Your task to perform on an android device: empty trash in the gmail app Image 0: 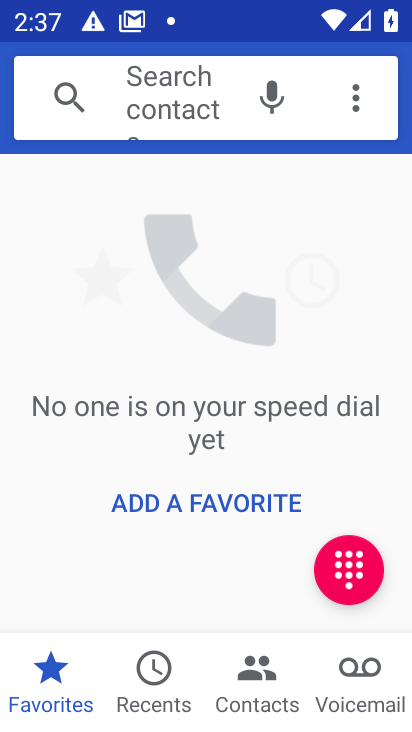
Step 0: press home button
Your task to perform on an android device: empty trash in the gmail app Image 1: 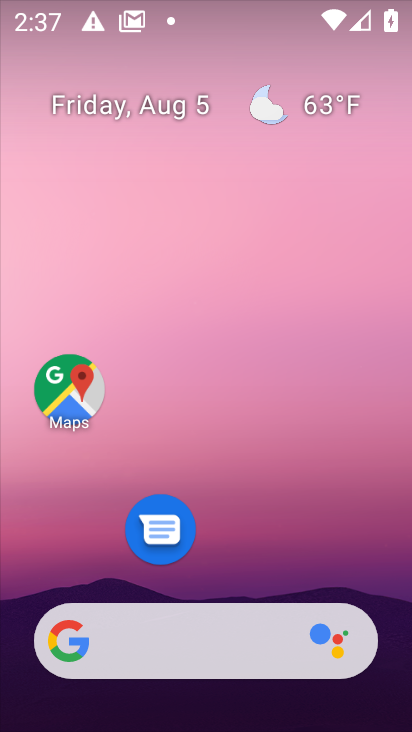
Step 1: drag from (105, 715) to (240, 3)
Your task to perform on an android device: empty trash in the gmail app Image 2: 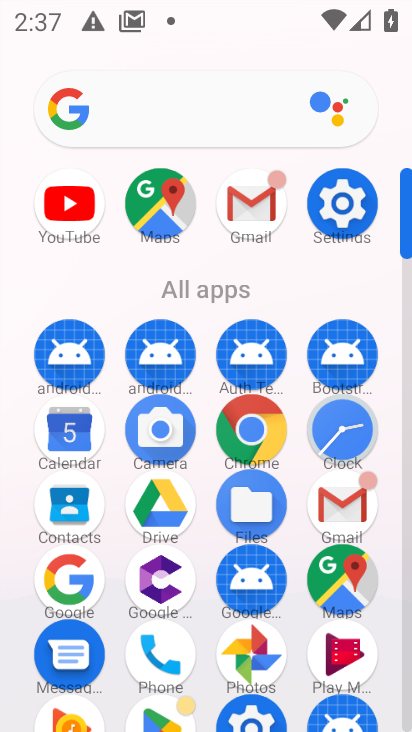
Step 2: click (243, 204)
Your task to perform on an android device: empty trash in the gmail app Image 3: 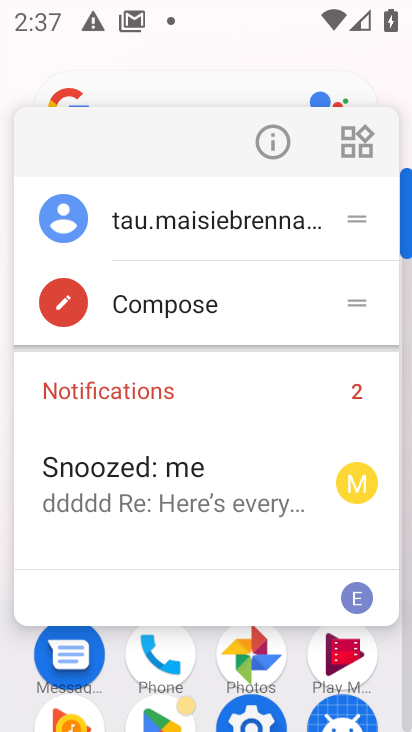
Step 3: click (262, 138)
Your task to perform on an android device: empty trash in the gmail app Image 4: 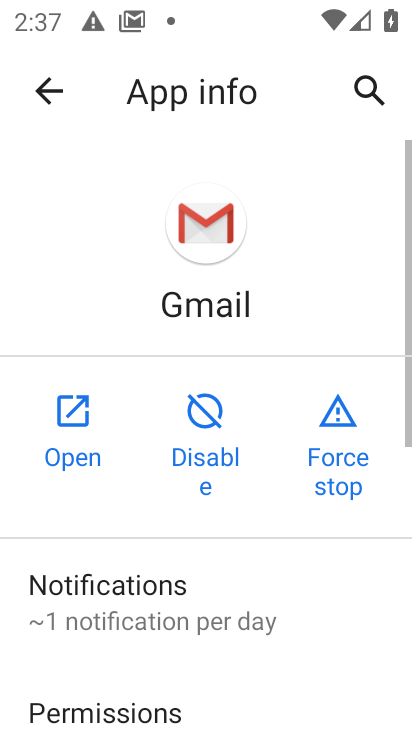
Step 4: drag from (273, 665) to (411, 2)
Your task to perform on an android device: empty trash in the gmail app Image 5: 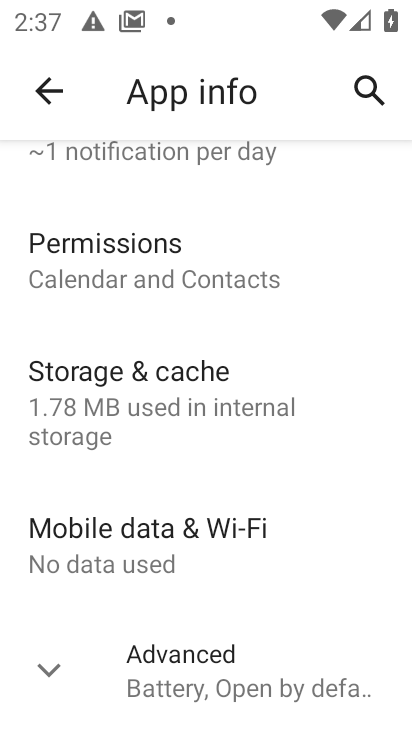
Step 5: drag from (348, 589) to (341, 97)
Your task to perform on an android device: empty trash in the gmail app Image 6: 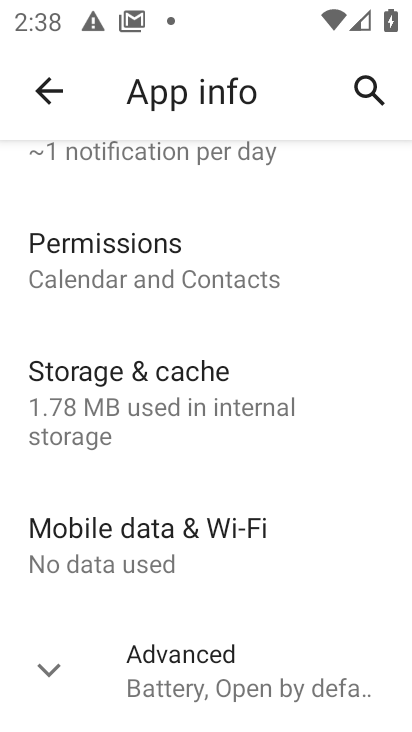
Step 6: click (31, 87)
Your task to perform on an android device: empty trash in the gmail app Image 7: 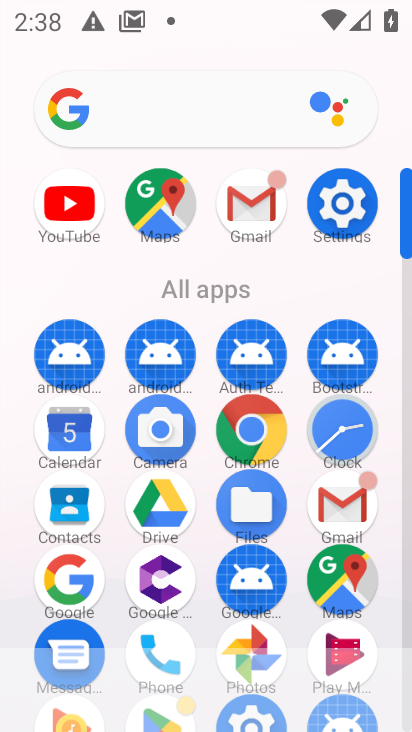
Step 7: click (260, 206)
Your task to perform on an android device: empty trash in the gmail app Image 8: 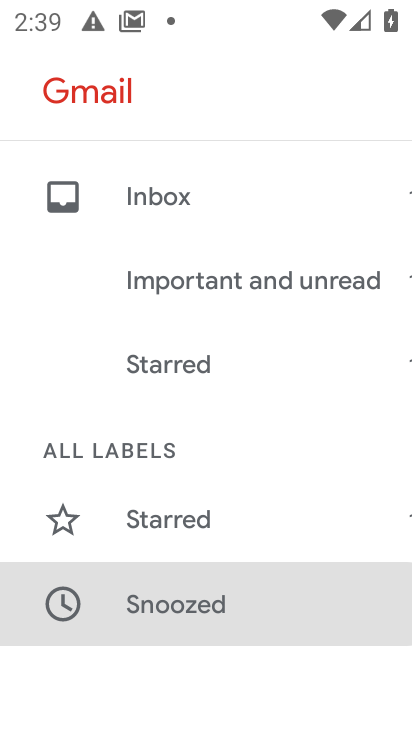
Step 8: drag from (233, 486) to (210, 25)
Your task to perform on an android device: empty trash in the gmail app Image 9: 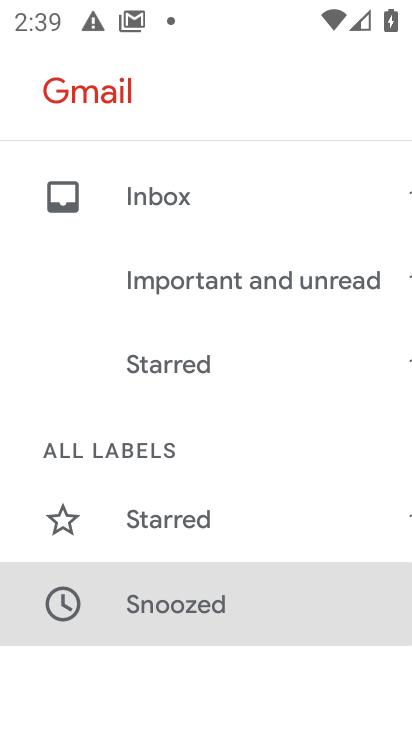
Step 9: drag from (235, 643) to (228, 79)
Your task to perform on an android device: empty trash in the gmail app Image 10: 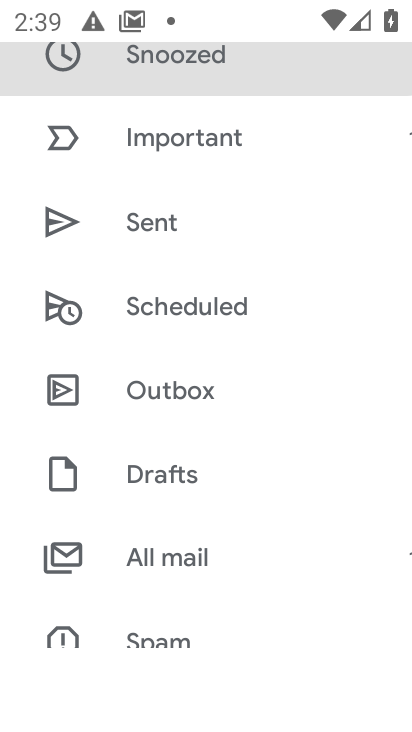
Step 10: drag from (255, 583) to (270, 59)
Your task to perform on an android device: empty trash in the gmail app Image 11: 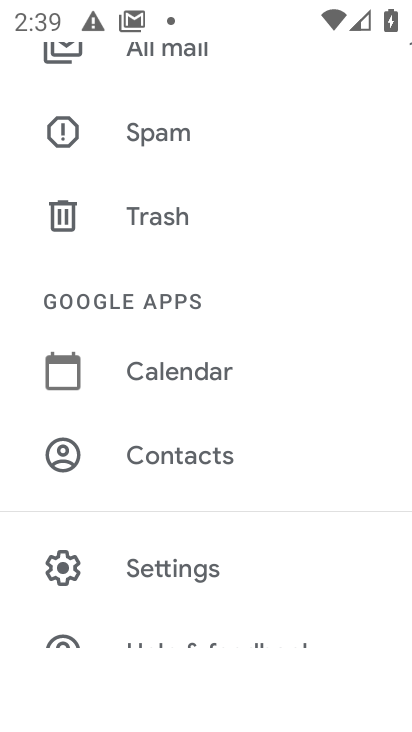
Step 11: click (197, 228)
Your task to perform on an android device: empty trash in the gmail app Image 12: 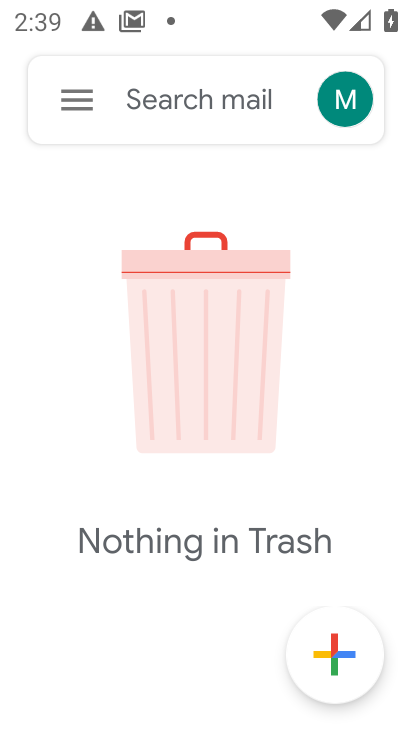
Step 12: task complete